Your task to perform on an android device: change the clock display to digital Image 0: 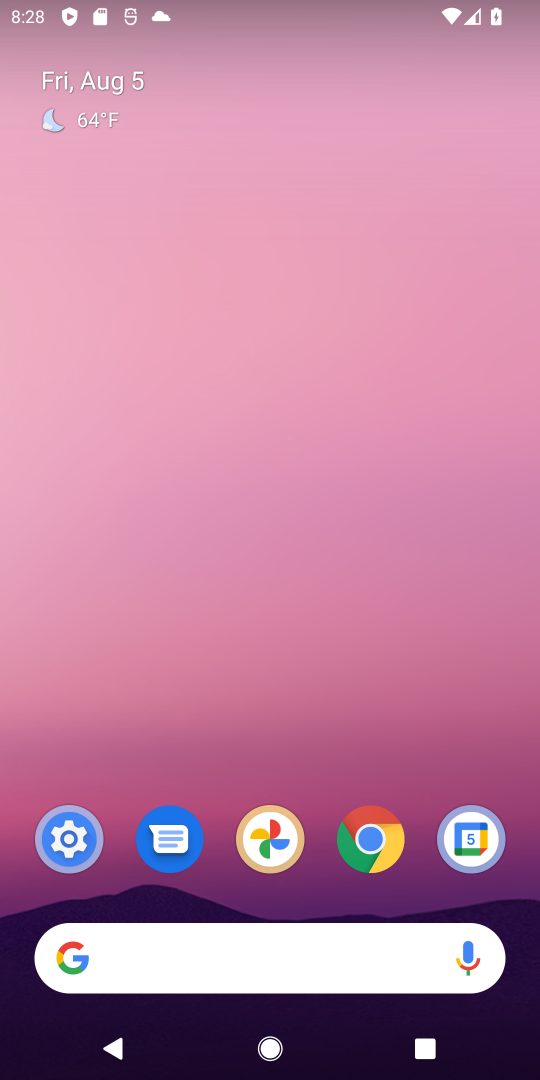
Step 0: drag from (319, 898) to (321, 191)
Your task to perform on an android device: change the clock display to digital Image 1: 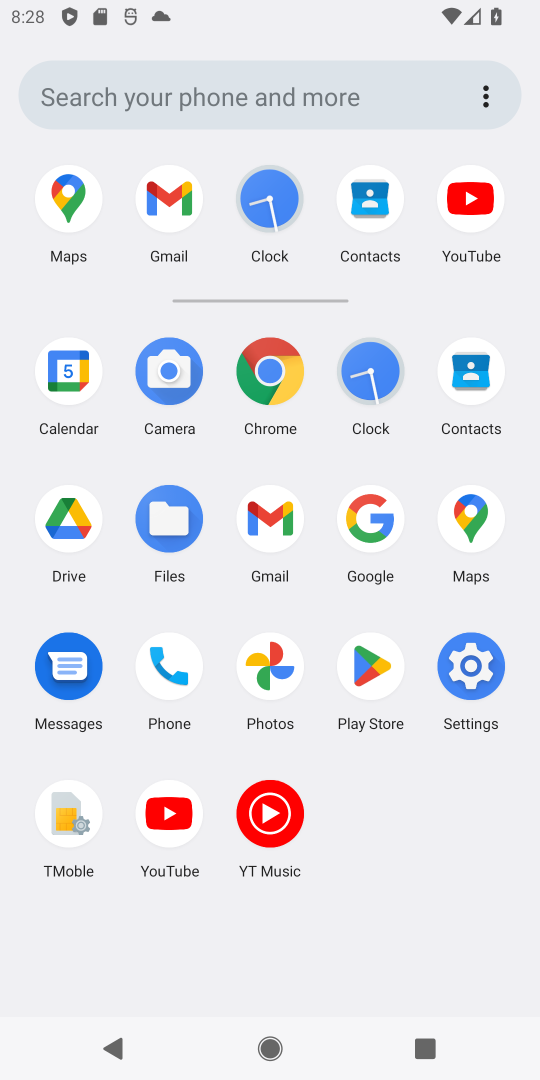
Step 1: click (365, 367)
Your task to perform on an android device: change the clock display to digital Image 2: 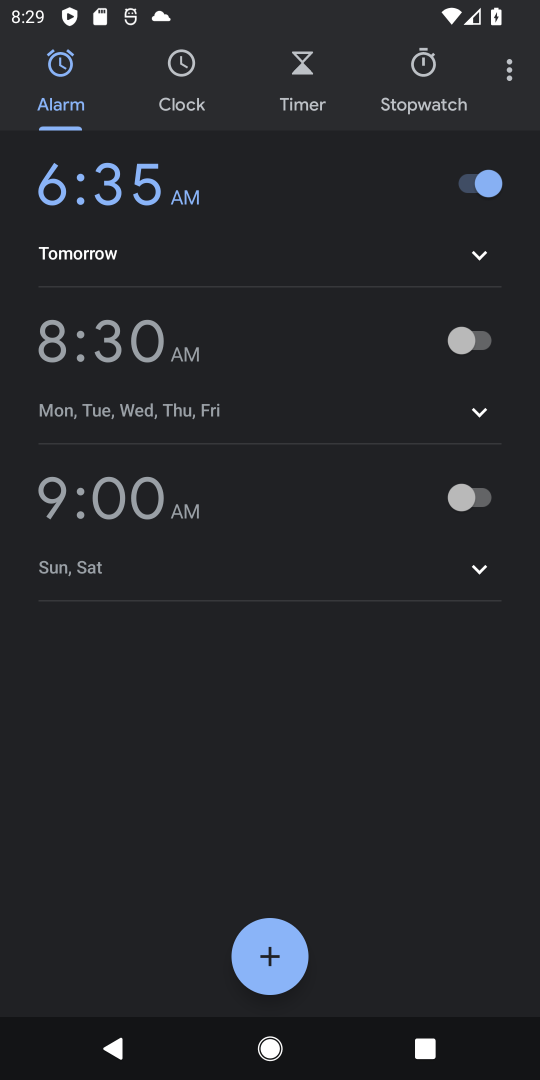
Step 2: click (514, 82)
Your task to perform on an android device: change the clock display to digital Image 3: 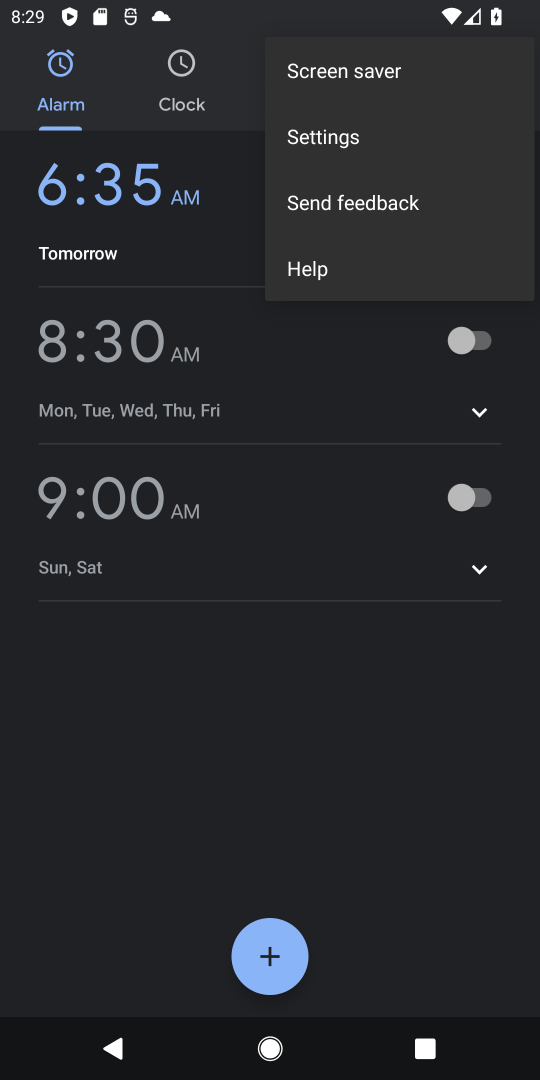
Step 3: click (325, 139)
Your task to perform on an android device: change the clock display to digital Image 4: 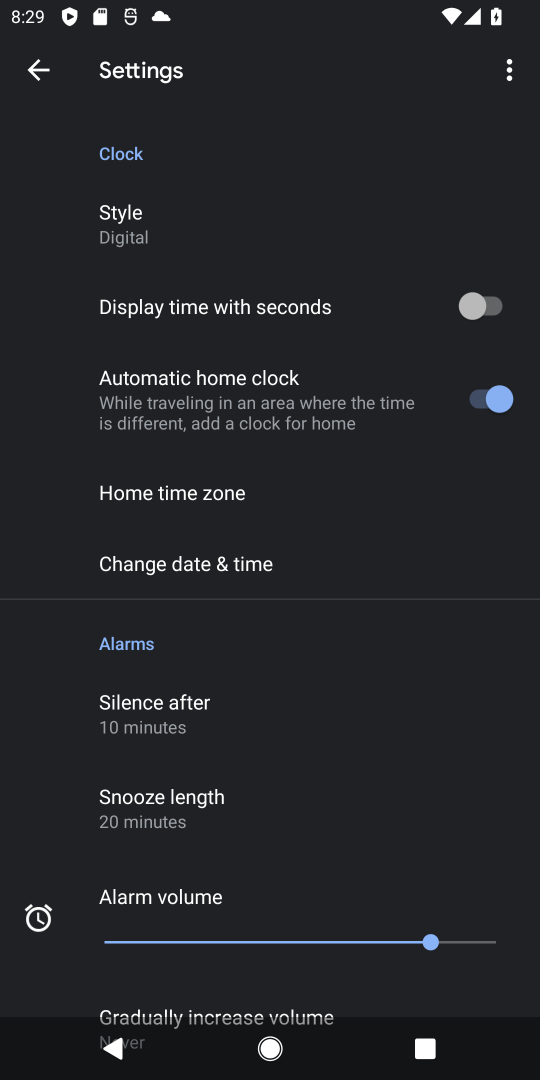
Step 4: task complete